Your task to perform on an android device: Go to Yahoo.com Image 0: 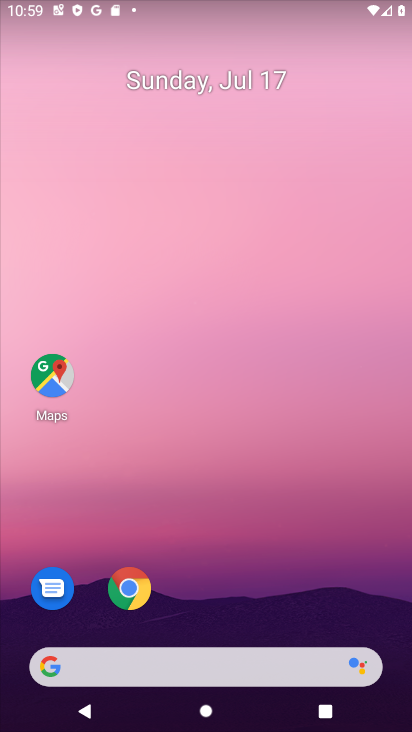
Step 0: click (127, 580)
Your task to perform on an android device: Go to Yahoo.com Image 1: 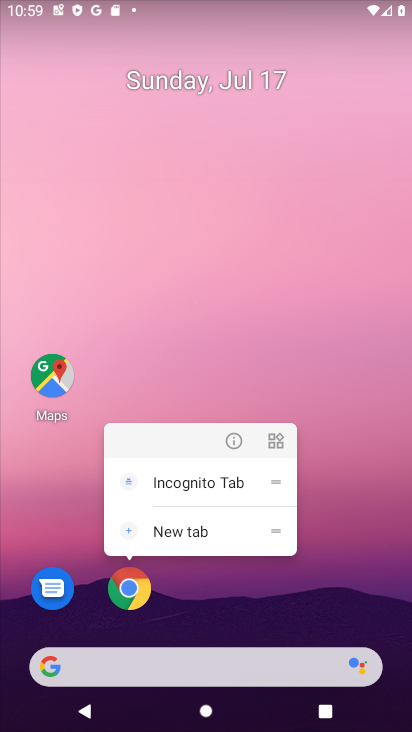
Step 1: click (127, 584)
Your task to perform on an android device: Go to Yahoo.com Image 2: 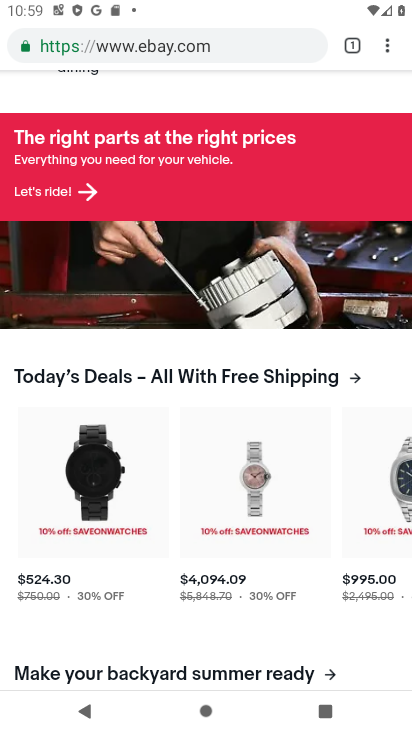
Step 2: click (349, 41)
Your task to perform on an android device: Go to Yahoo.com Image 3: 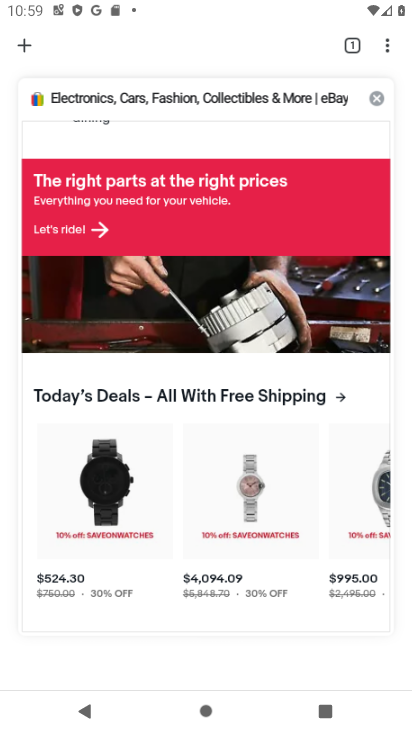
Step 3: click (29, 45)
Your task to perform on an android device: Go to Yahoo.com Image 4: 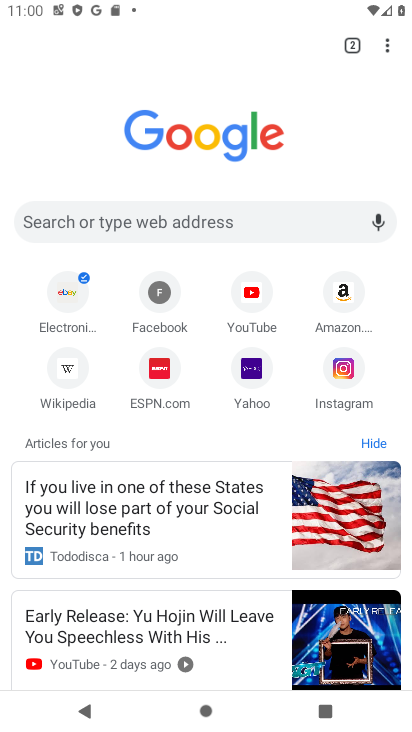
Step 4: click (252, 368)
Your task to perform on an android device: Go to Yahoo.com Image 5: 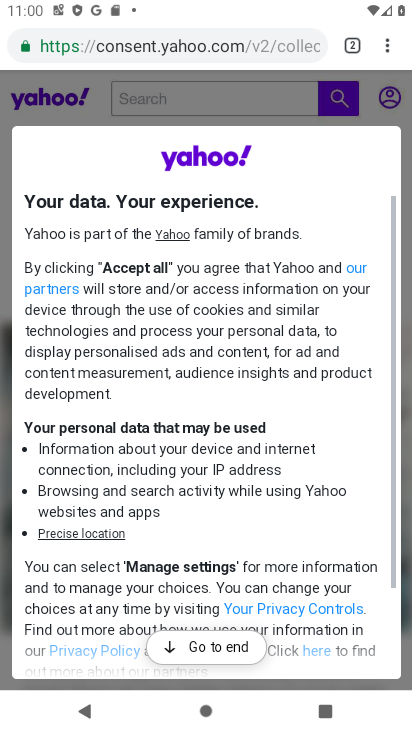
Step 5: drag from (216, 591) to (237, 153)
Your task to perform on an android device: Go to Yahoo.com Image 6: 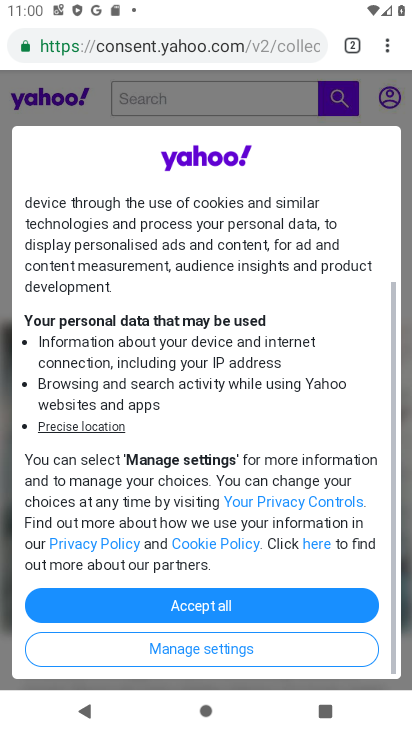
Step 6: click (209, 607)
Your task to perform on an android device: Go to Yahoo.com Image 7: 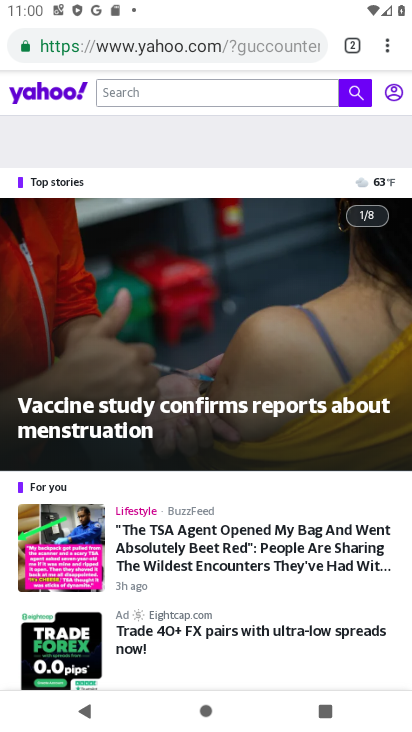
Step 7: task complete